Your task to perform on an android device: Open Android settings Image 0: 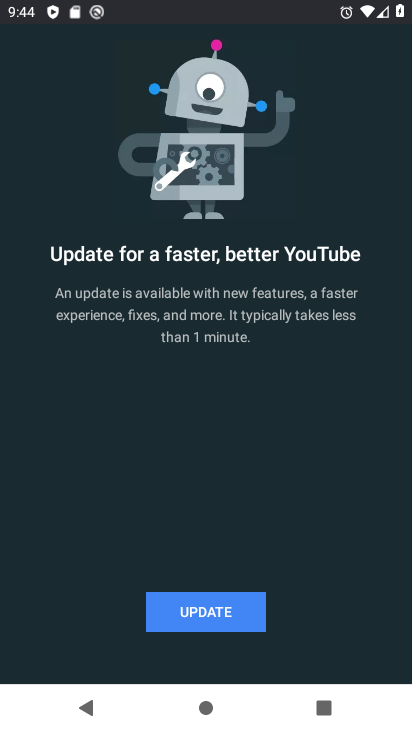
Step 0: press home button
Your task to perform on an android device: Open Android settings Image 1: 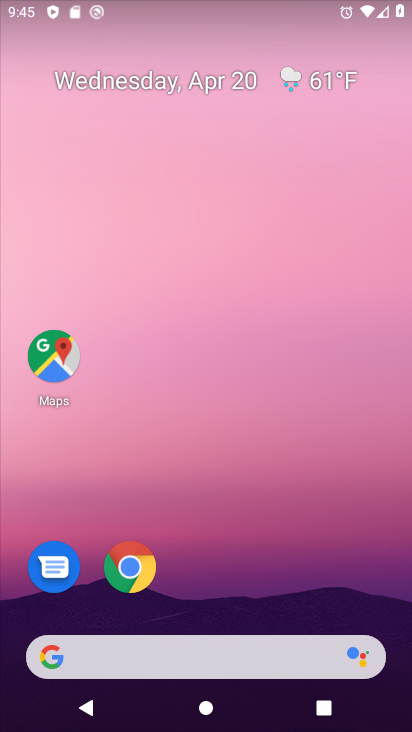
Step 1: drag from (207, 593) to (208, 215)
Your task to perform on an android device: Open Android settings Image 2: 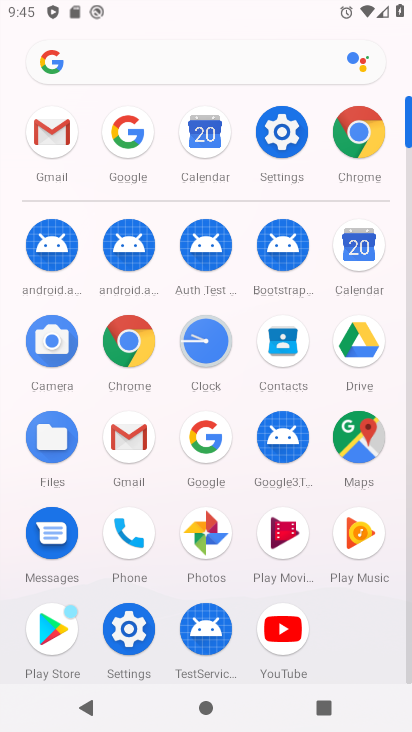
Step 2: click (286, 145)
Your task to perform on an android device: Open Android settings Image 3: 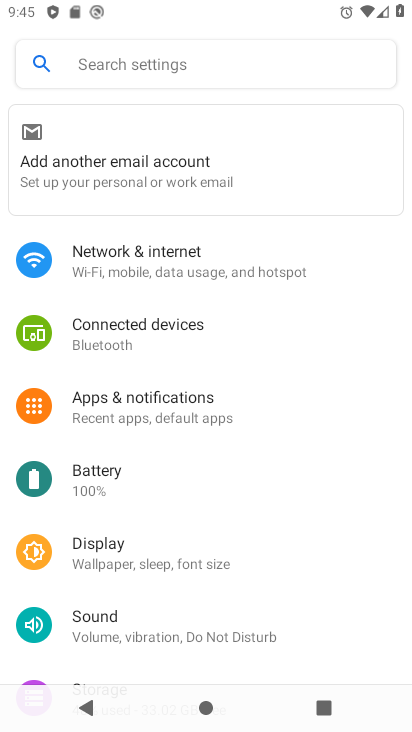
Step 3: task complete